Your task to perform on an android device: turn on the 24-hour format for clock Image 0: 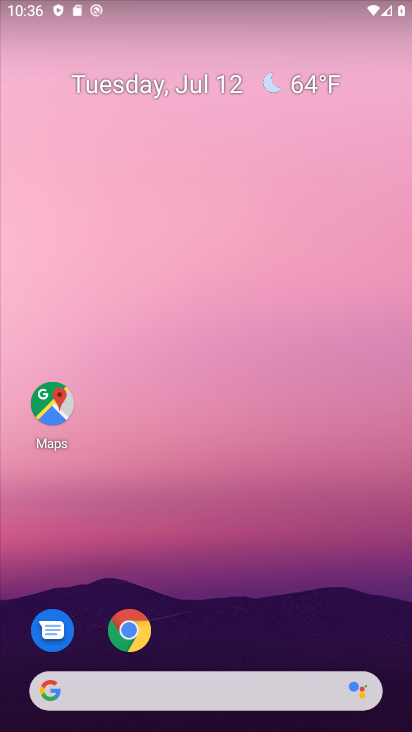
Step 0: drag from (325, 555) to (308, 122)
Your task to perform on an android device: turn on the 24-hour format for clock Image 1: 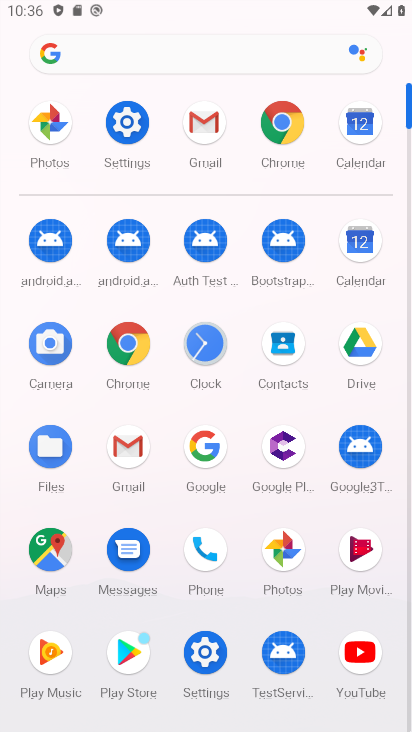
Step 1: click (209, 343)
Your task to perform on an android device: turn on the 24-hour format for clock Image 2: 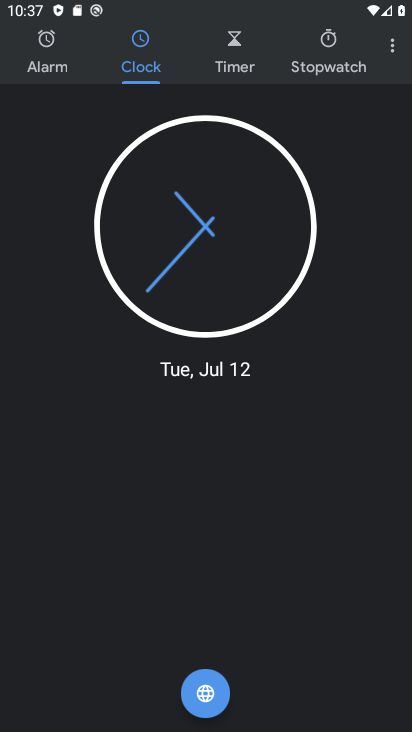
Step 2: click (389, 47)
Your task to perform on an android device: turn on the 24-hour format for clock Image 3: 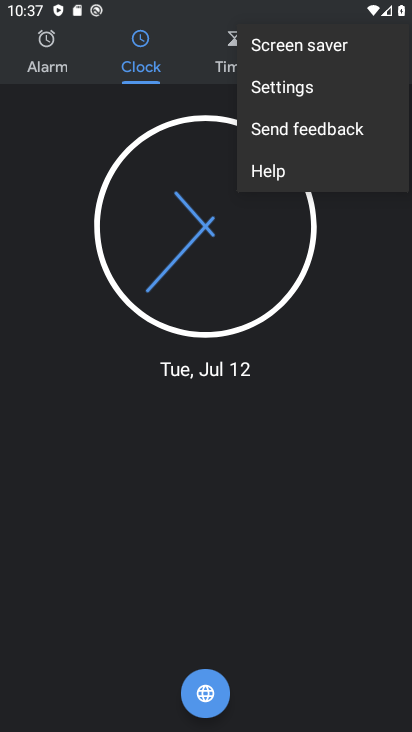
Step 3: click (340, 84)
Your task to perform on an android device: turn on the 24-hour format for clock Image 4: 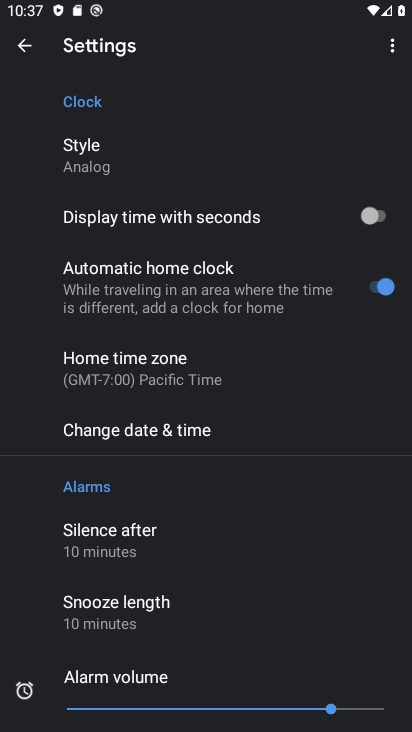
Step 4: drag from (323, 423) to (332, 309)
Your task to perform on an android device: turn on the 24-hour format for clock Image 5: 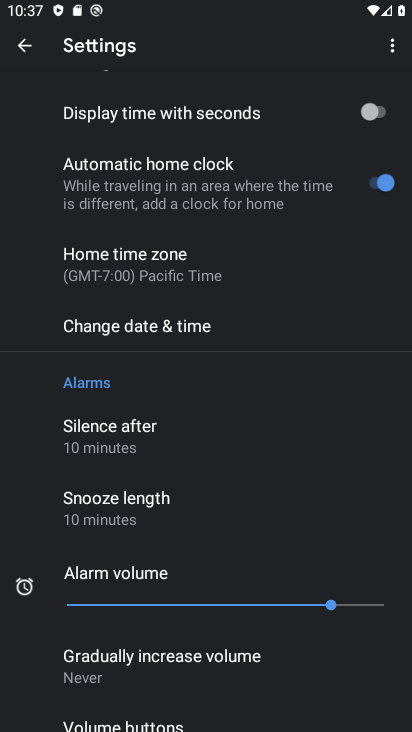
Step 5: drag from (327, 436) to (332, 290)
Your task to perform on an android device: turn on the 24-hour format for clock Image 6: 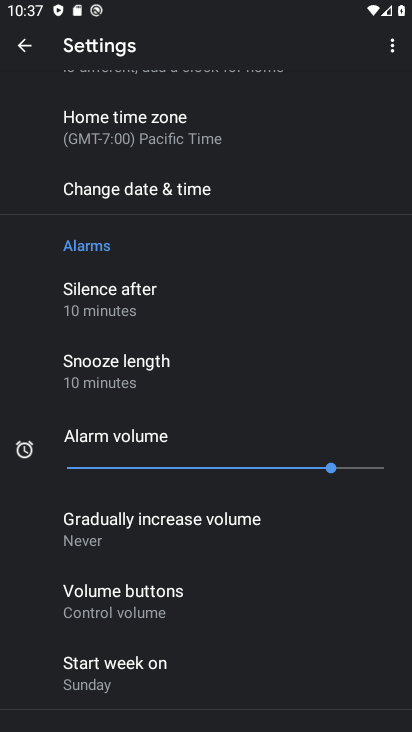
Step 6: drag from (363, 563) to (374, 395)
Your task to perform on an android device: turn on the 24-hour format for clock Image 7: 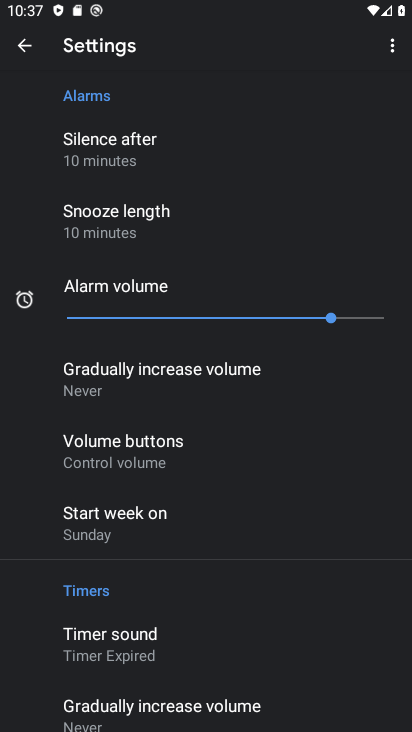
Step 7: drag from (351, 554) to (349, 433)
Your task to perform on an android device: turn on the 24-hour format for clock Image 8: 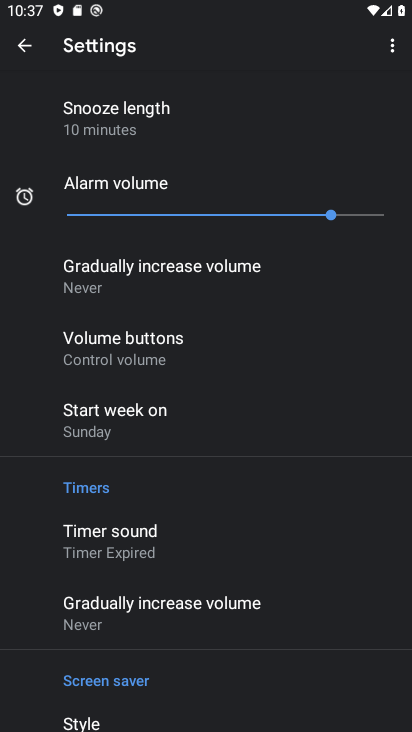
Step 8: drag from (336, 565) to (353, 436)
Your task to perform on an android device: turn on the 24-hour format for clock Image 9: 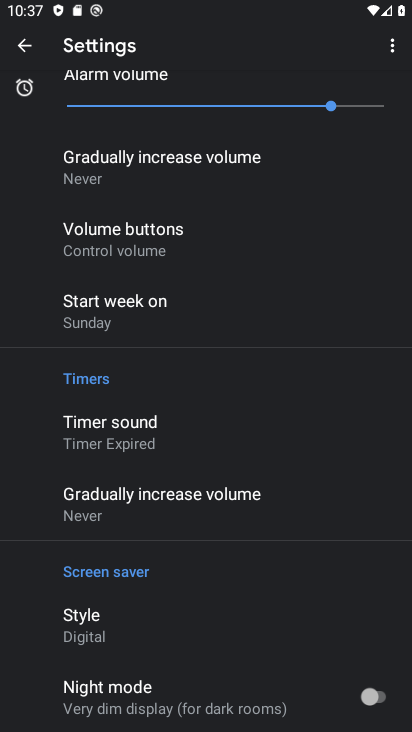
Step 9: drag from (286, 247) to (290, 366)
Your task to perform on an android device: turn on the 24-hour format for clock Image 10: 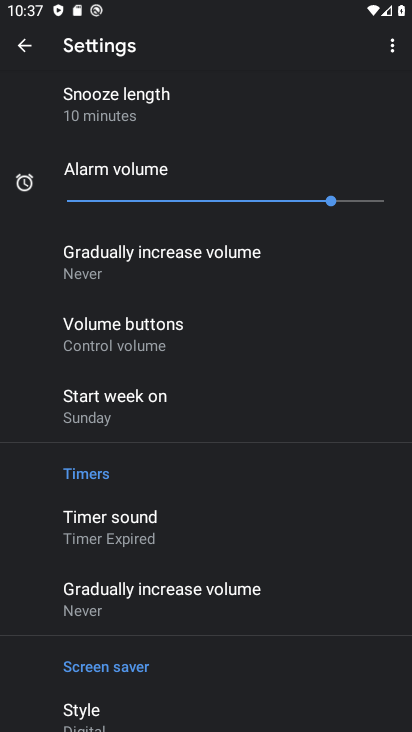
Step 10: drag from (316, 295) to (317, 408)
Your task to perform on an android device: turn on the 24-hour format for clock Image 11: 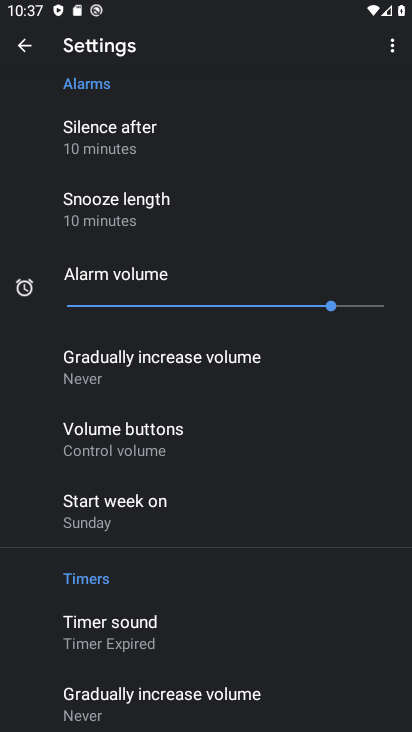
Step 11: drag from (324, 299) to (324, 416)
Your task to perform on an android device: turn on the 24-hour format for clock Image 12: 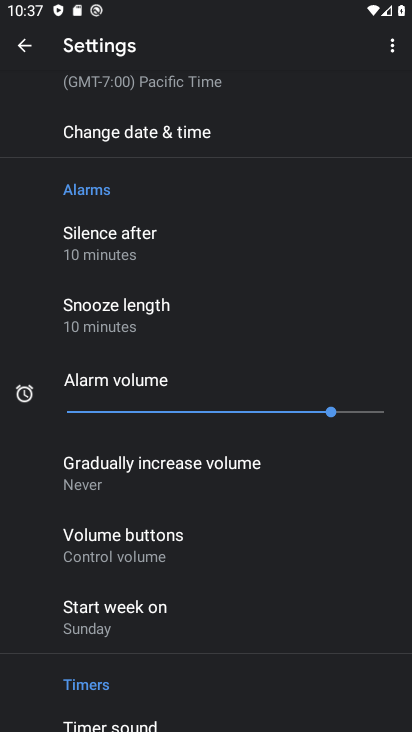
Step 12: drag from (334, 276) to (328, 470)
Your task to perform on an android device: turn on the 24-hour format for clock Image 13: 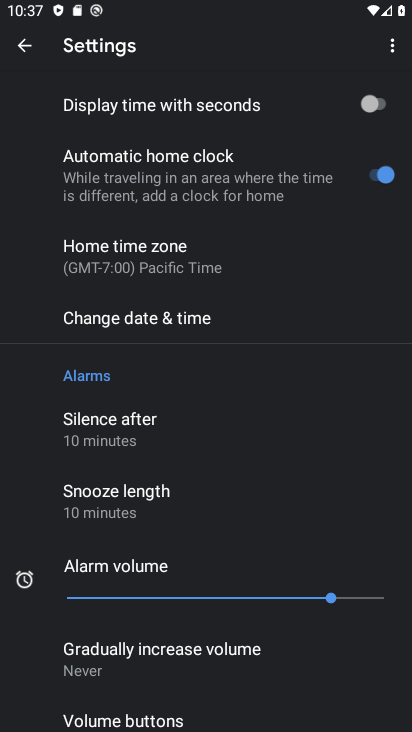
Step 13: drag from (335, 305) to (331, 523)
Your task to perform on an android device: turn on the 24-hour format for clock Image 14: 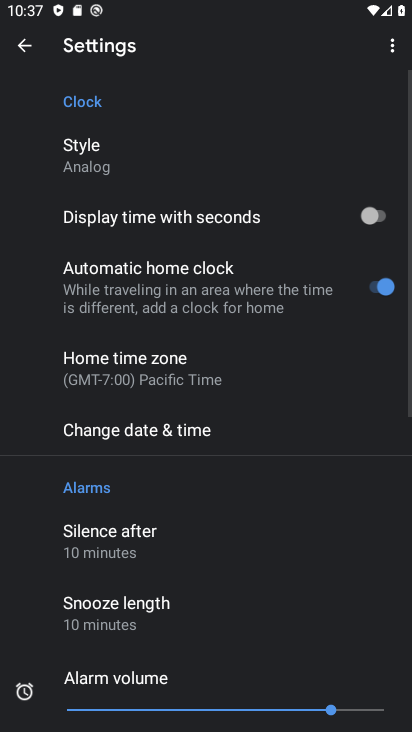
Step 14: click (241, 428)
Your task to perform on an android device: turn on the 24-hour format for clock Image 15: 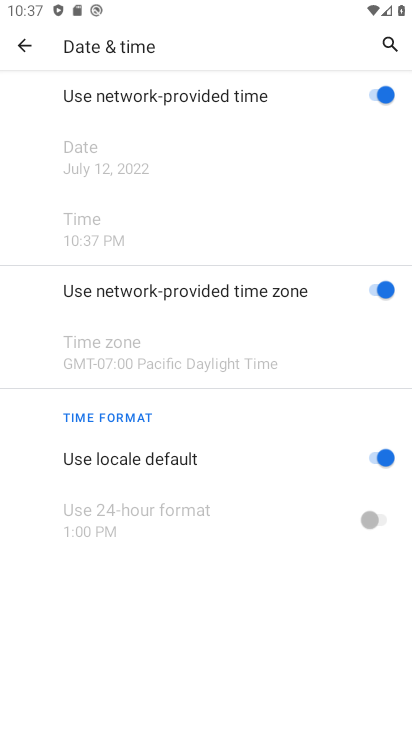
Step 15: click (381, 456)
Your task to perform on an android device: turn on the 24-hour format for clock Image 16: 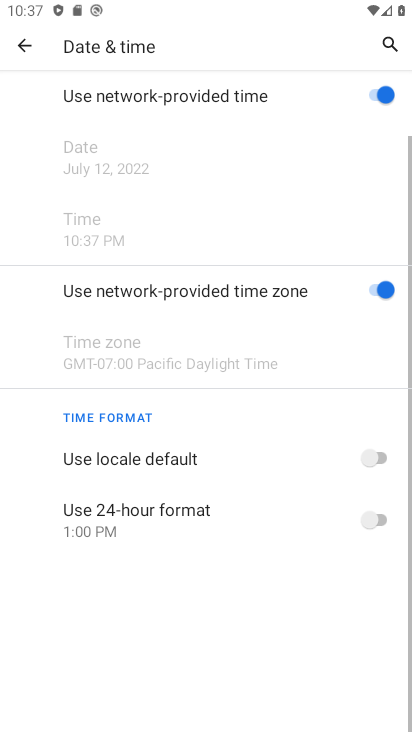
Step 16: click (370, 519)
Your task to perform on an android device: turn on the 24-hour format for clock Image 17: 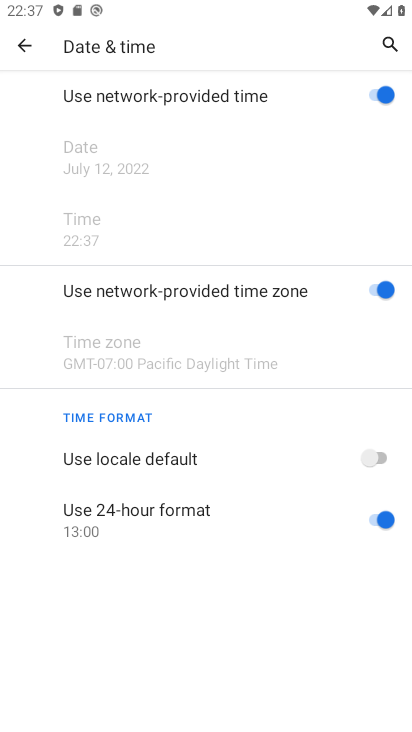
Step 17: task complete